Your task to perform on an android device: Show me popular videos on Youtube Image 0: 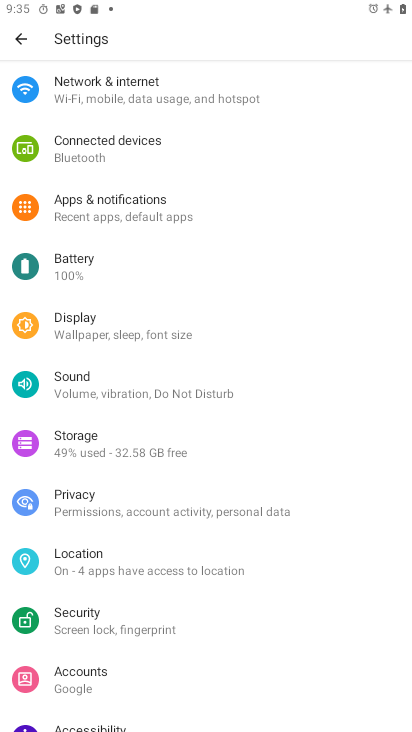
Step 0: press home button
Your task to perform on an android device: Show me popular videos on Youtube Image 1: 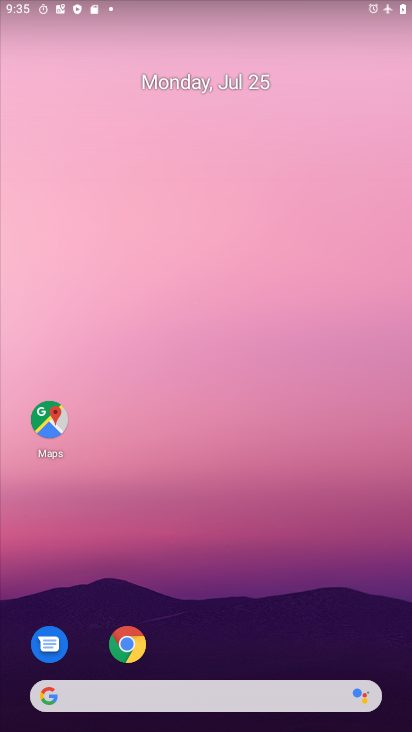
Step 1: drag from (331, 592) to (194, 79)
Your task to perform on an android device: Show me popular videos on Youtube Image 2: 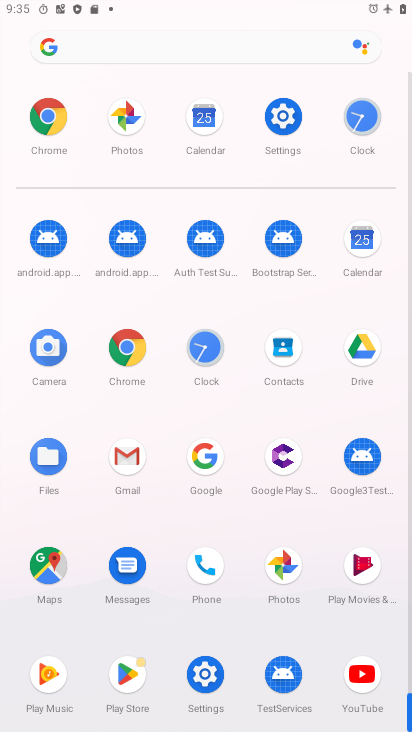
Step 2: click (348, 663)
Your task to perform on an android device: Show me popular videos on Youtube Image 3: 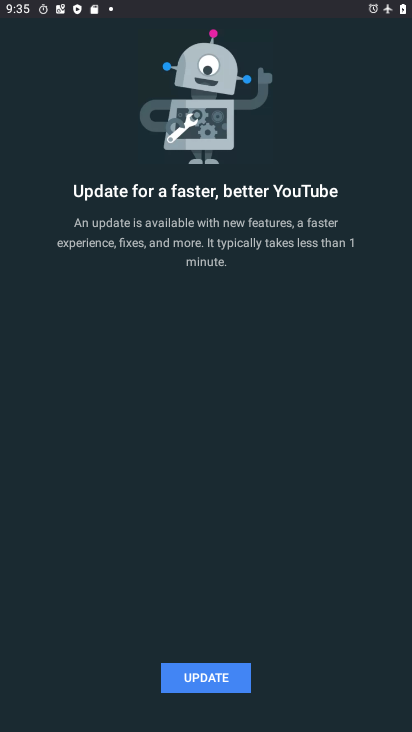
Step 3: task complete